Your task to perform on an android device: Go to display settings Image 0: 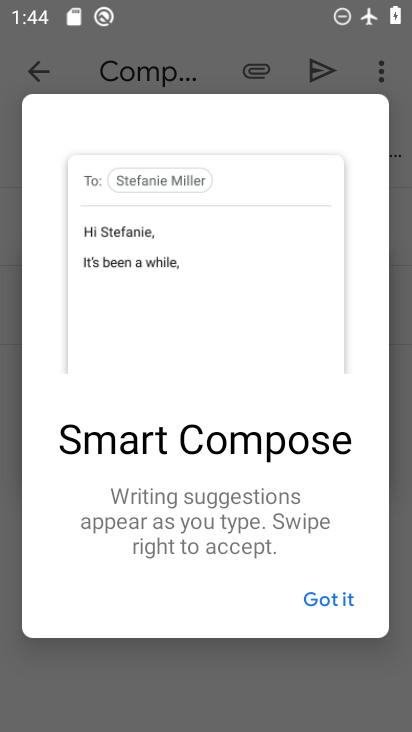
Step 0: press home button
Your task to perform on an android device: Go to display settings Image 1: 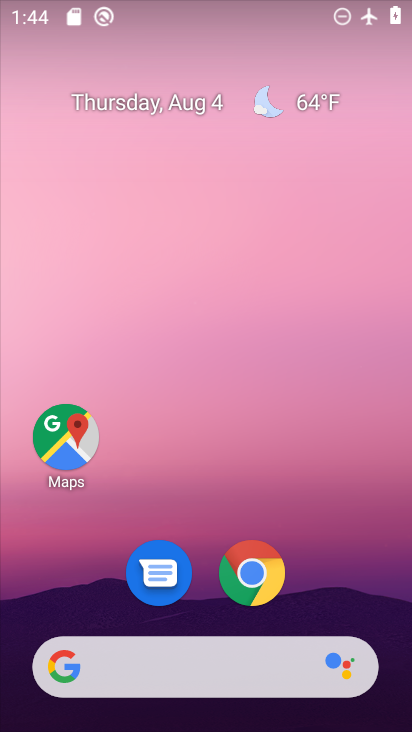
Step 1: drag from (342, 556) to (318, 295)
Your task to perform on an android device: Go to display settings Image 2: 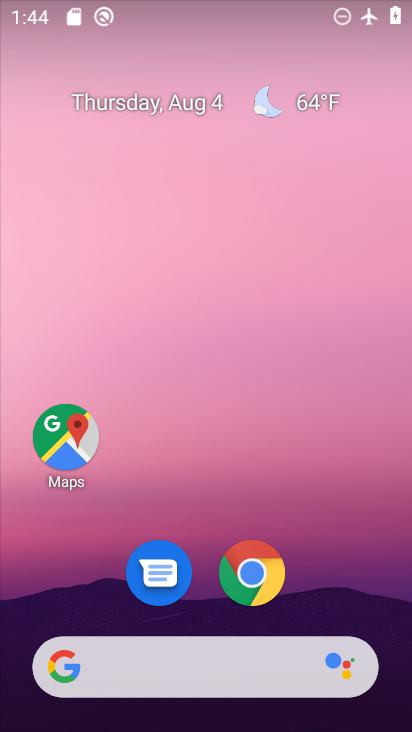
Step 2: drag from (337, 348) to (327, 56)
Your task to perform on an android device: Go to display settings Image 3: 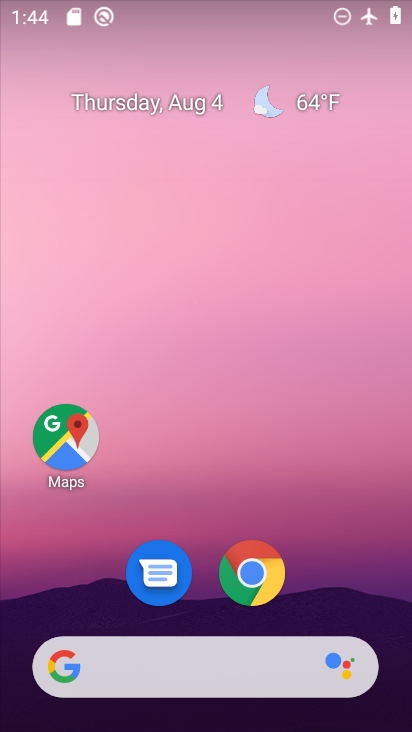
Step 3: drag from (309, 541) to (309, 16)
Your task to perform on an android device: Go to display settings Image 4: 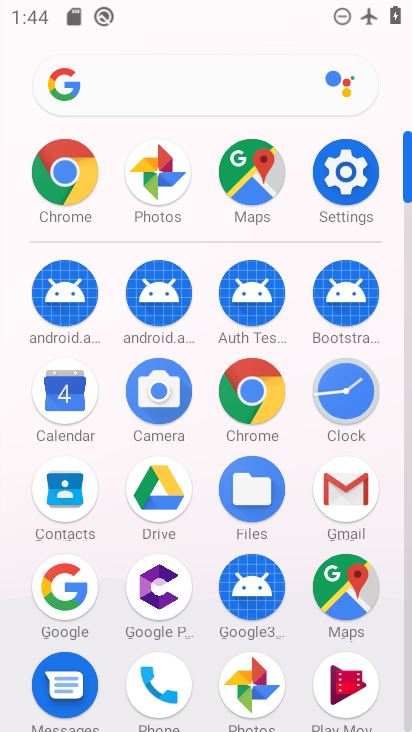
Step 4: click (364, 158)
Your task to perform on an android device: Go to display settings Image 5: 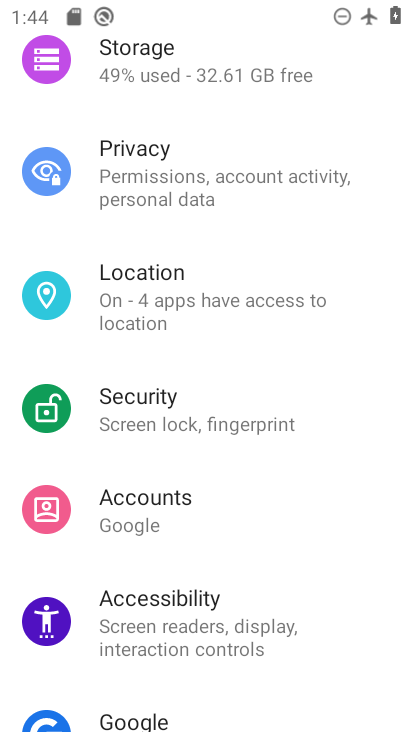
Step 5: drag from (246, 164) to (225, 557)
Your task to perform on an android device: Go to display settings Image 6: 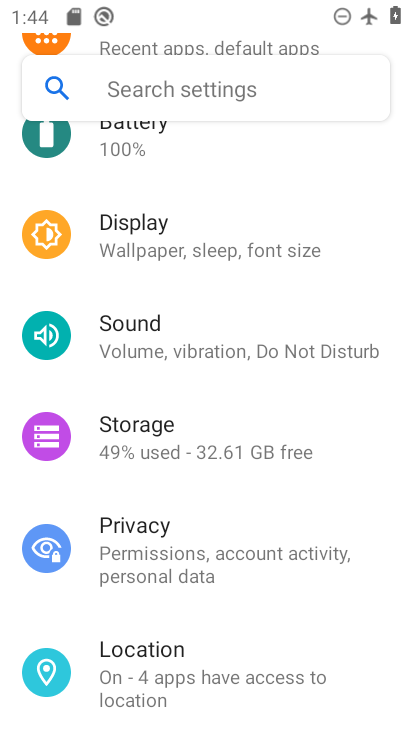
Step 6: drag from (227, 172) to (219, 355)
Your task to perform on an android device: Go to display settings Image 7: 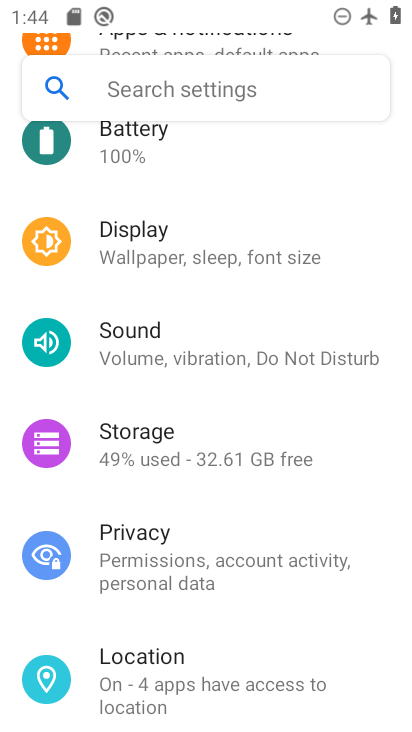
Step 7: click (187, 246)
Your task to perform on an android device: Go to display settings Image 8: 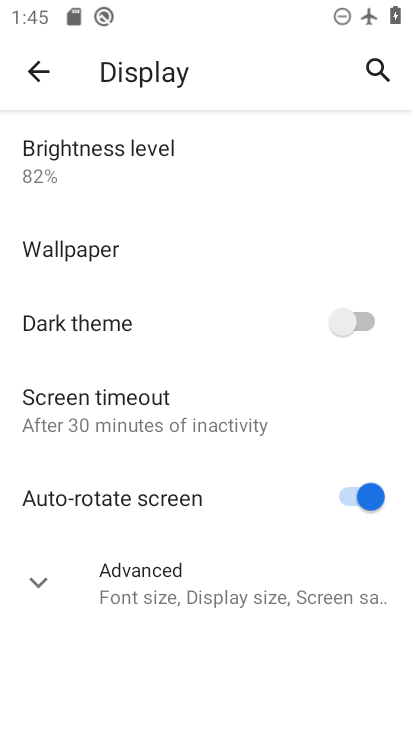
Step 8: task complete